Your task to perform on an android device: Go to Yahoo.com Image 0: 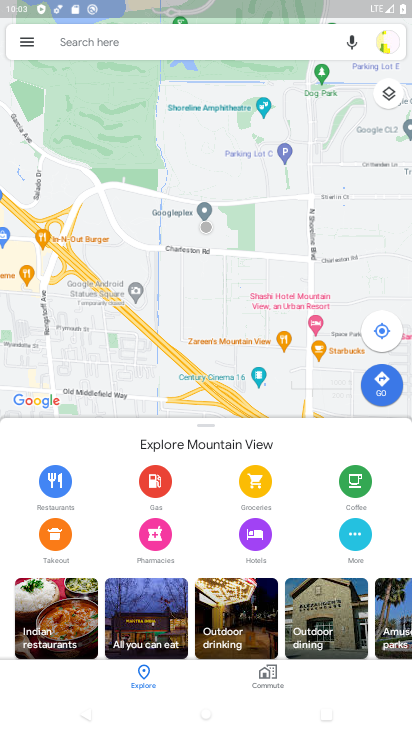
Step 0: press home button
Your task to perform on an android device: Go to Yahoo.com Image 1: 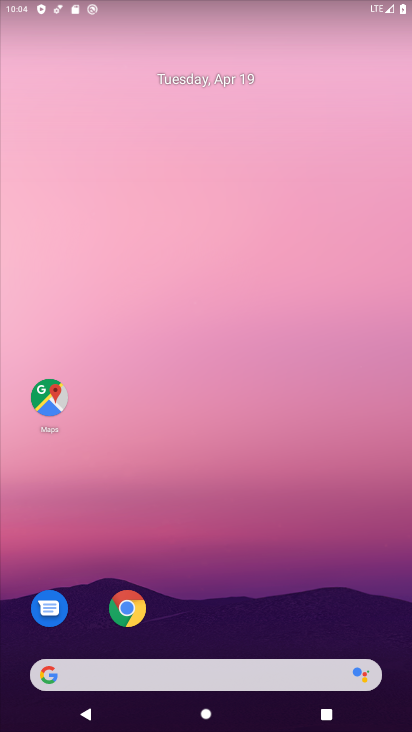
Step 1: click (122, 599)
Your task to perform on an android device: Go to Yahoo.com Image 2: 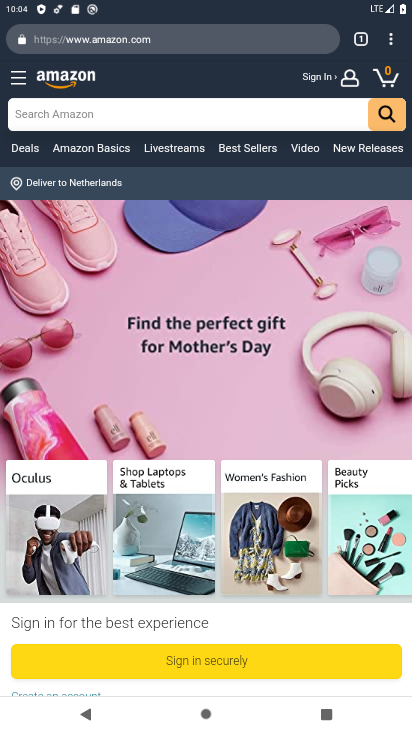
Step 2: click (120, 108)
Your task to perform on an android device: Go to Yahoo.com Image 3: 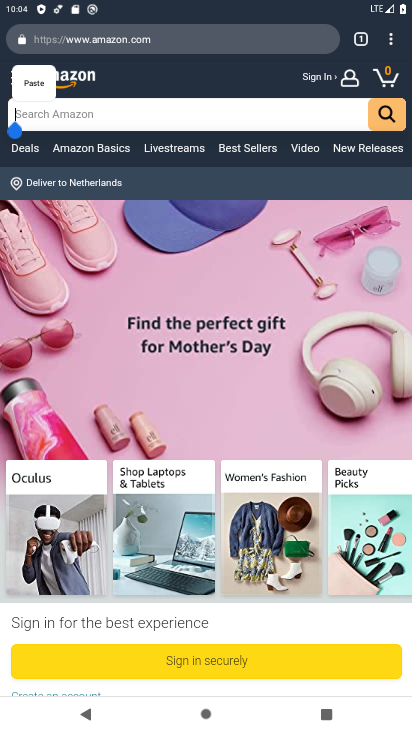
Step 3: type " Yahoo.com"
Your task to perform on an android device: Go to Yahoo.com Image 4: 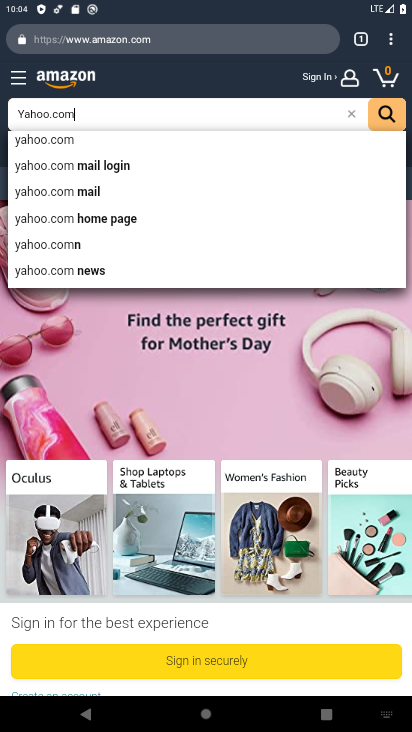
Step 4: click (63, 134)
Your task to perform on an android device: Go to Yahoo.com Image 5: 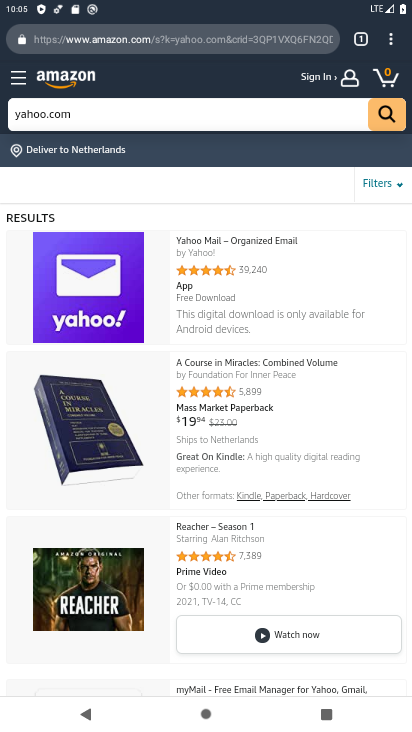
Step 5: task complete